Your task to perform on an android device: Open display settings Image 0: 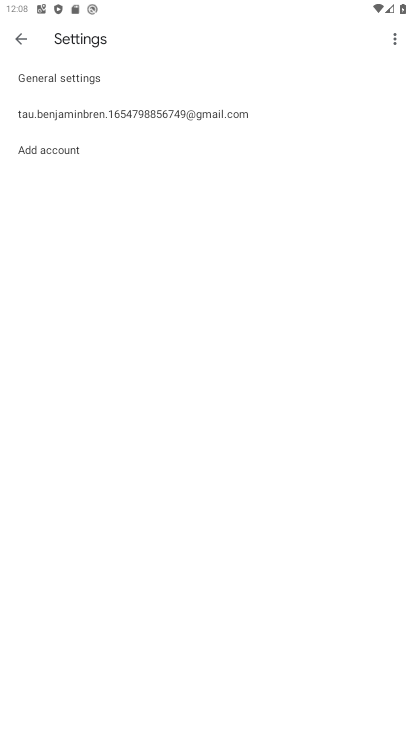
Step 0: press home button
Your task to perform on an android device: Open display settings Image 1: 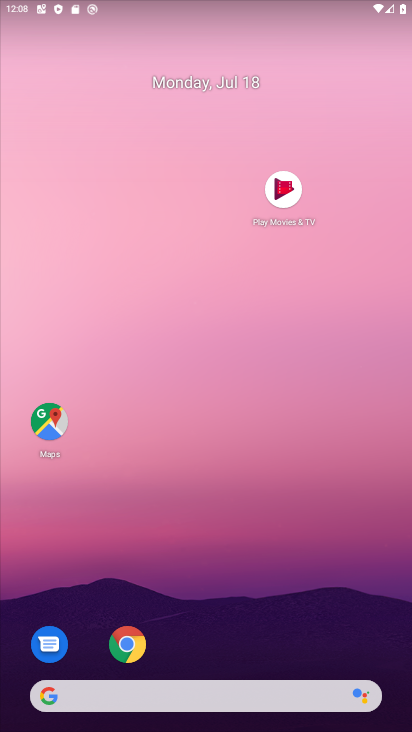
Step 1: drag from (237, 55) to (227, 2)
Your task to perform on an android device: Open display settings Image 2: 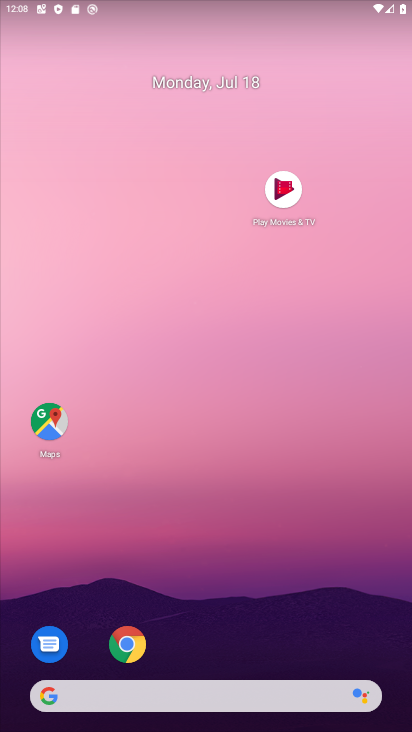
Step 2: drag from (299, 524) to (259, 1)
Your task to perform on an android device: Open display settings Image 3: 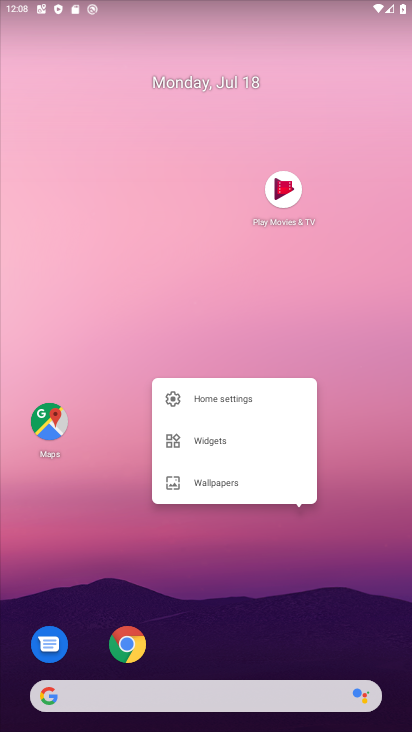
Step 3: press home button
Your task to perform on an android device: Open display settings Image 4: 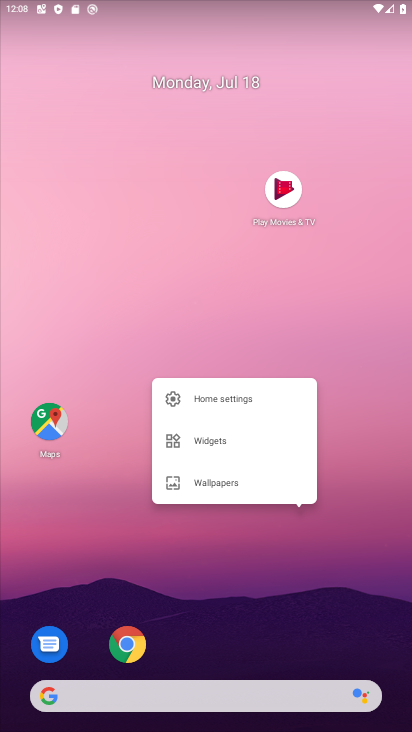
Step 4: click (330, 593)
Your task to perform on an android device: Open display settings Image 5: 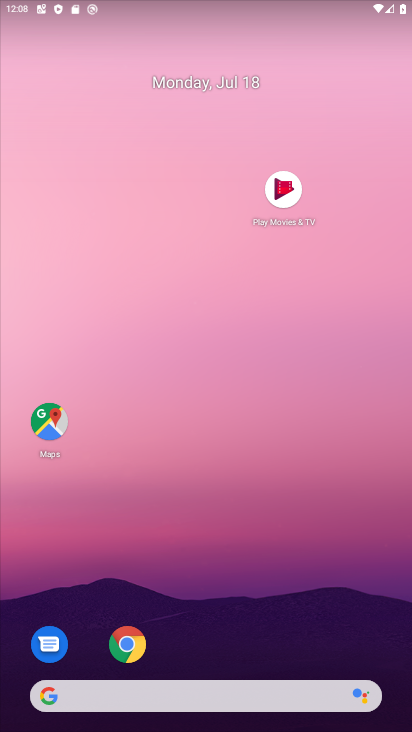
Step 5: drag from (254, 417) to (191, 73)
Your task to perform on an android device: Open display settings Image 6: 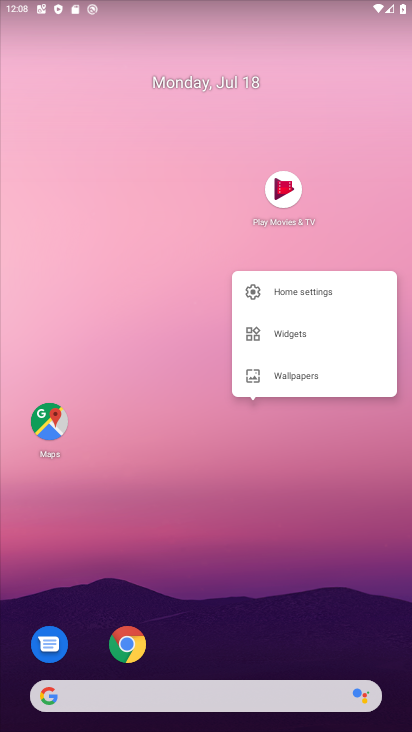
Step 6: click (168, 255)
Your task to perform on an android device: Open display settings Image 7: 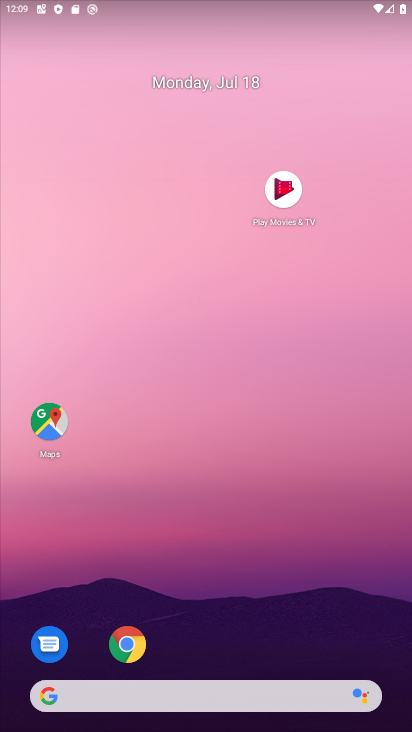
Step 7: click (168, 255)
Your task to perform on an android device: Open display settings Image 8: 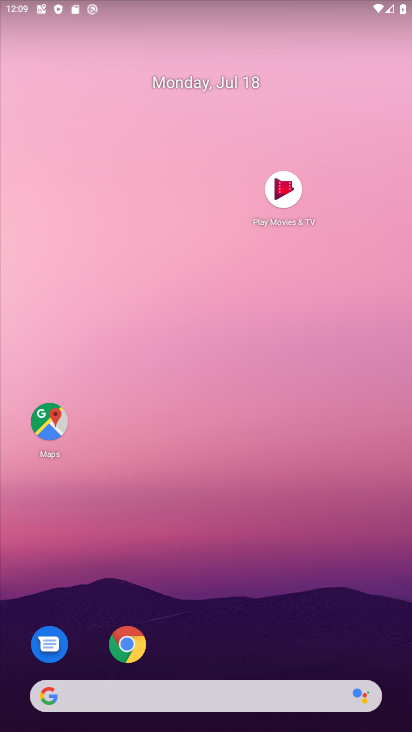
Step 8: drag from (283, 437) to (327, 168)
Your task to perform on an android device: Open display settings Image 9: 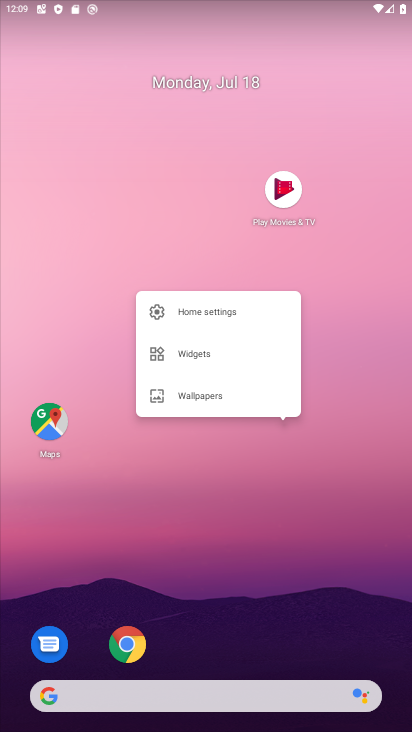
Step 9: click (339, 485)
Your task to perform on an android device: Open display settings Image 10: 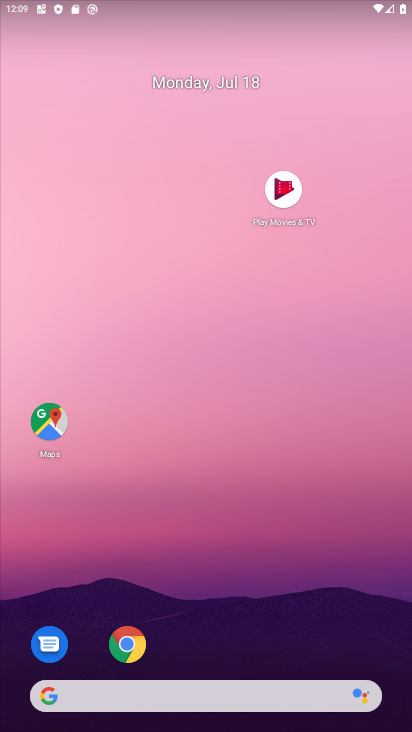
Step 10: click (295, 638)
Your task to perform on an android device: Open display settings Image 11: 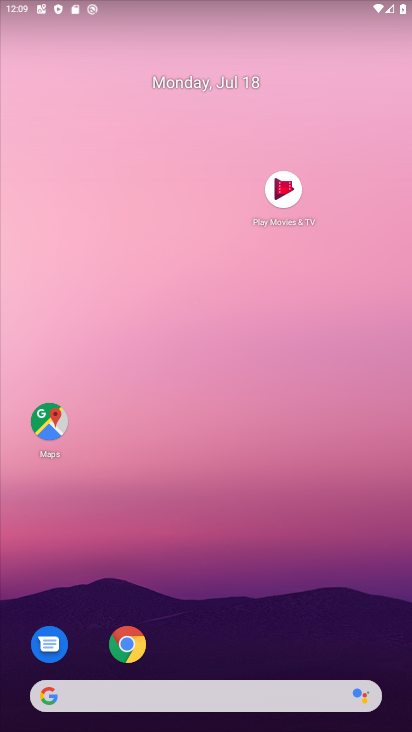
Step 11: click (297, 627)
Your task to perform on an android device: Open display settings Image 12: 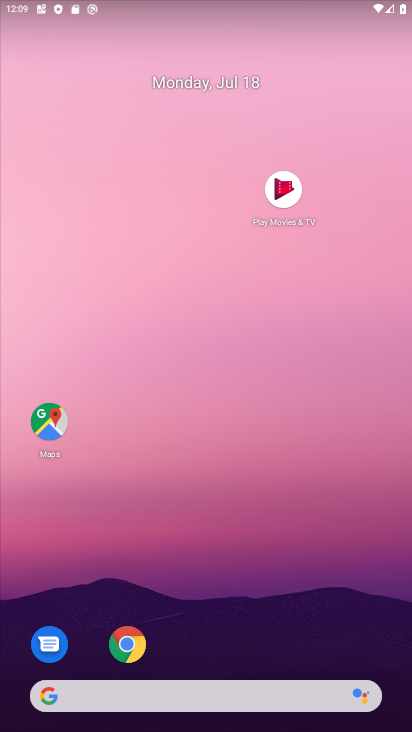
Step 12: click (411, 679)
Your task to perform on an android device: Open display settings Image 13: 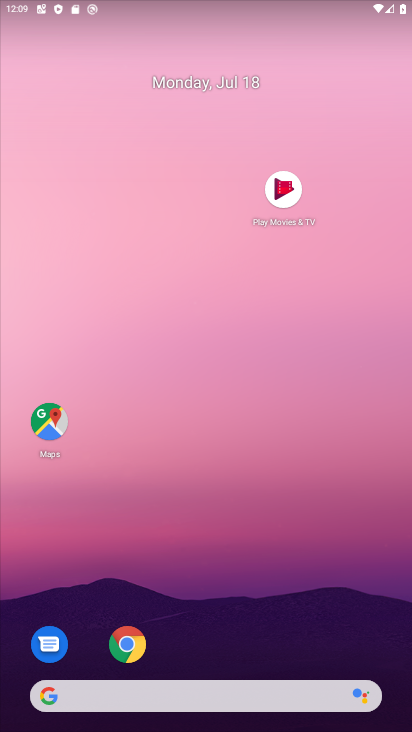
Step 13: click (289, 598)
Your task to perform on an android device: Open display settings Image 14: 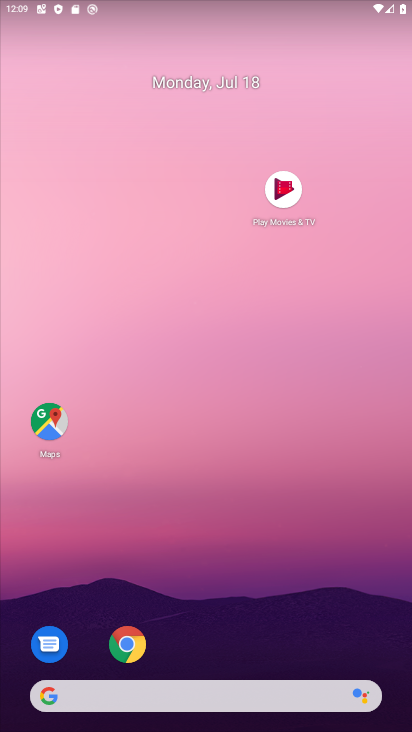
Step 14: drag from (264, 623) to (250, 110)
Your task to perform on an android device: Open display settings Image 15: 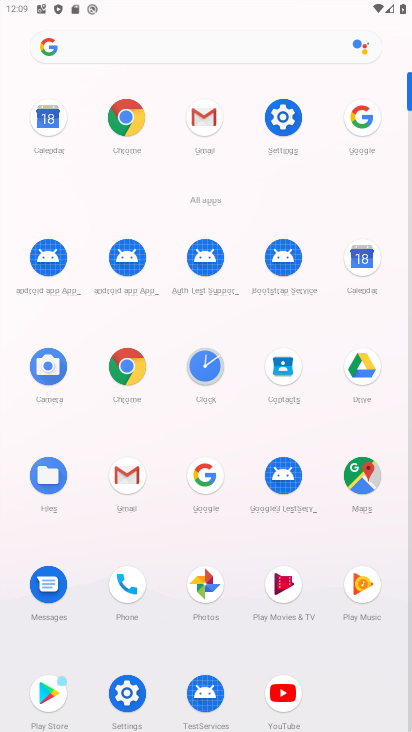
Step 15: click (283, 110)
Your task to perform on an android device: Open display settings Image 16: 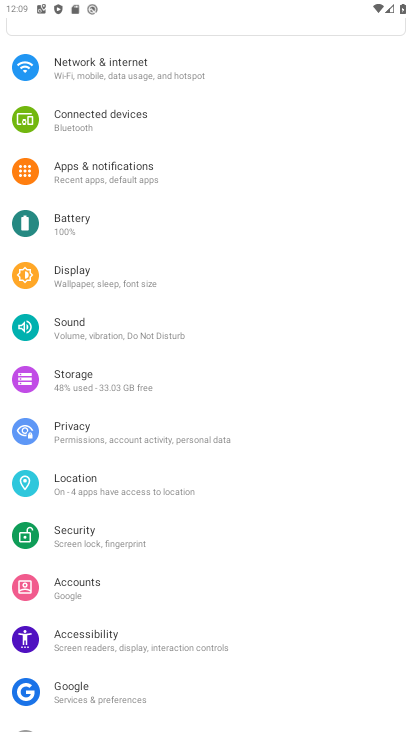
Step 16: click (100, 275)
Your task to perform on an android device: Open display settings Image 17: 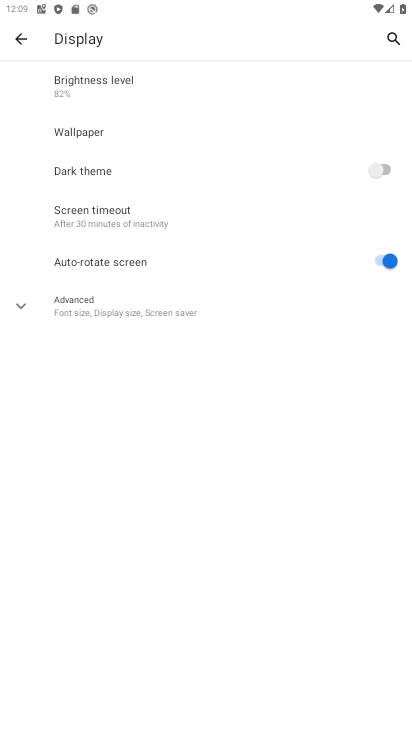
Step 17: task complete